Your task to perform on an android device: Open wifi settings Image 0: 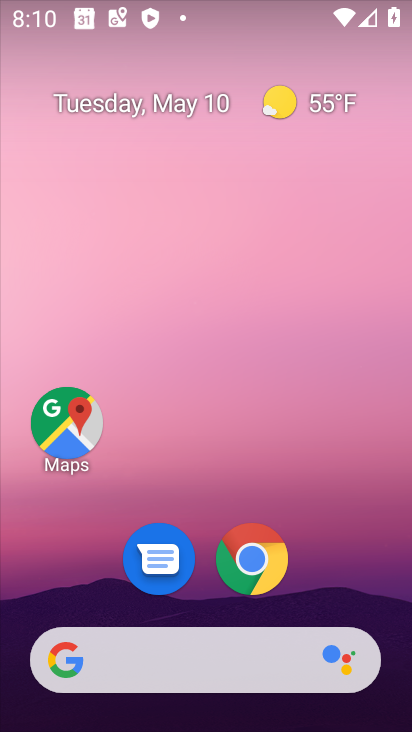
Step 0: drag from (220, 726) to (210, 157)
Your task to perform on an android device: Open wifi settings Image 1: 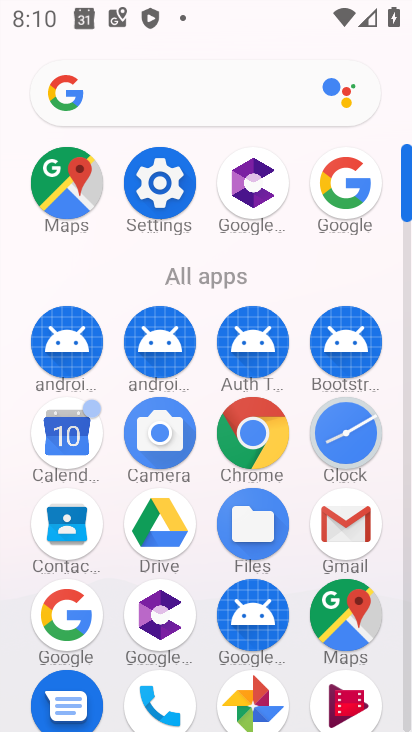
Step 1: click (163, 174)
Your task to perform on an android device: Open wifi settings Image 2: 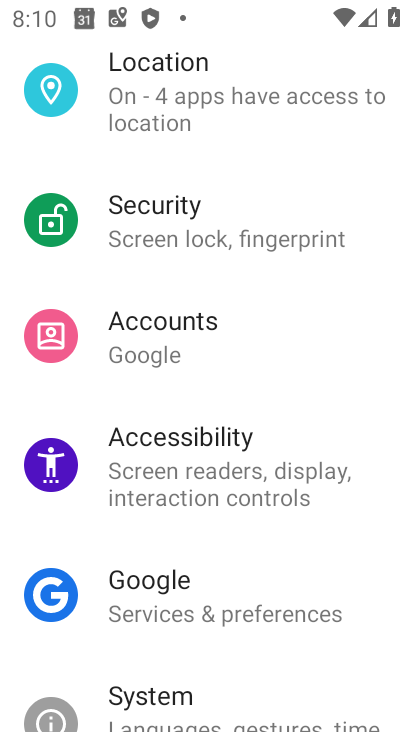
Step 2: drag from (227, 113) to (195, 548)
Your task to perform on an android device: Open wifi settings Image 3: 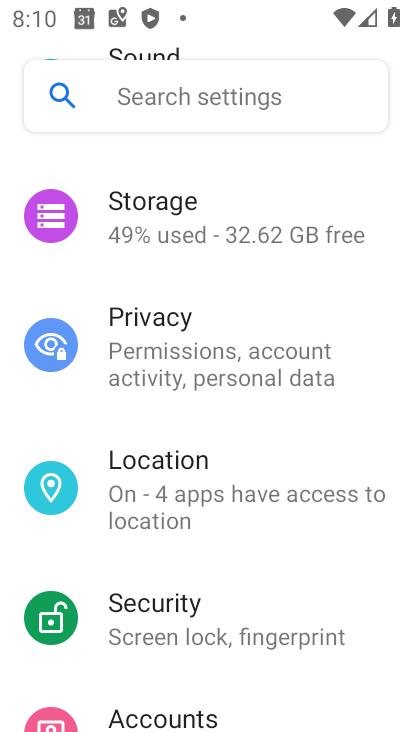
Step 3: drag from (238, 160) to (244, 474)
Your task to perform on an android device: Open wifi settings Image 4: 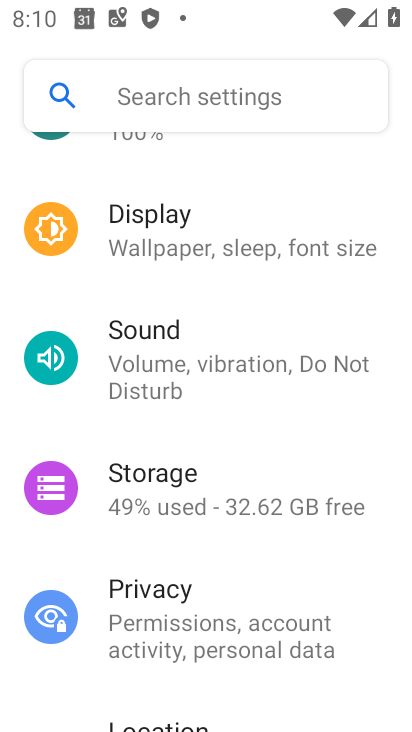
Step 4: drag from (261, 191) to (273, 490)
Your task to perform on an android device: Open wifi settings Image 5: 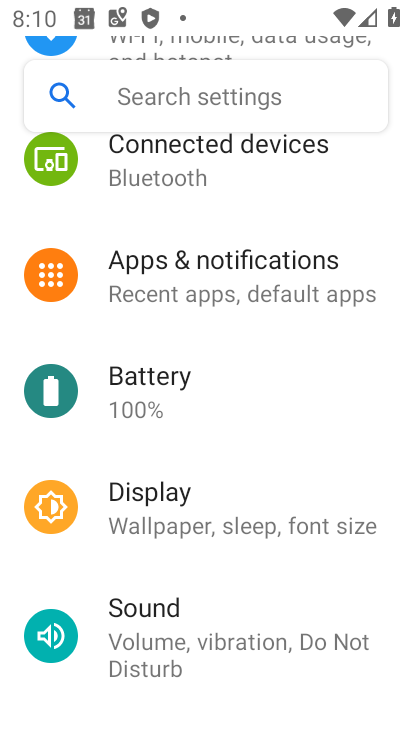
Step 5: drag from (292, 205) to (290, 462)
Your task to perform on an android device: Open wifi settings Image 6: 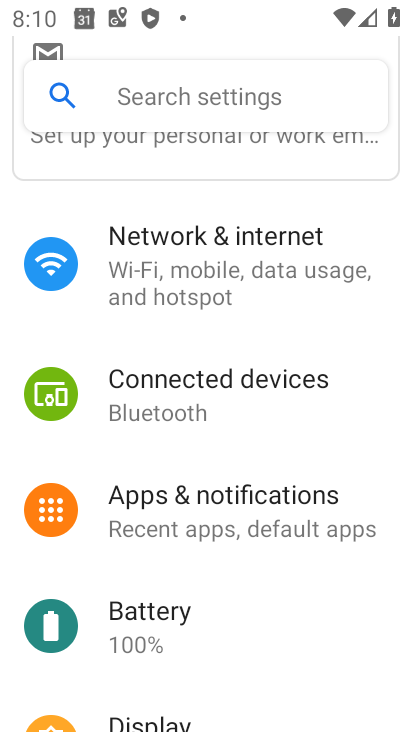
Step 6: click (174, 265)
Your task to perform on an android device: Open wifi settings Image 7: 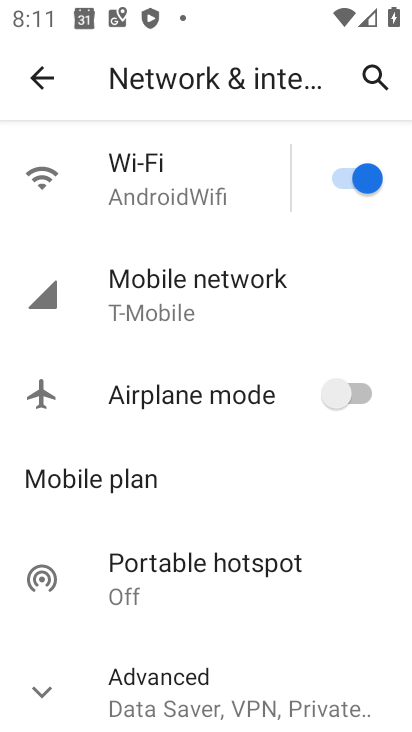
Step 7: click (133, 185)
Your task to perform on an android device: Open wifi settings Image 8: 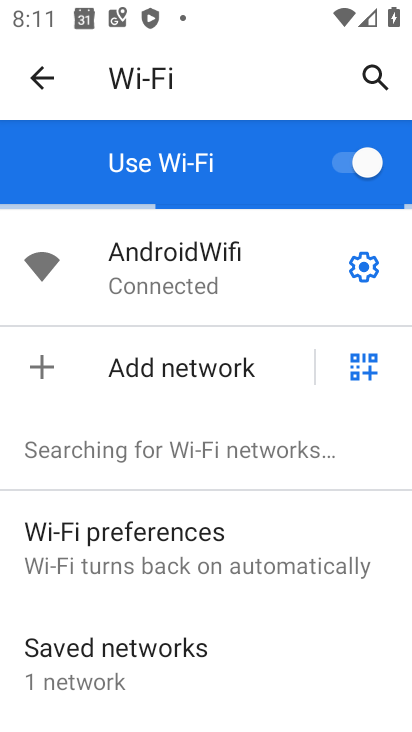
Step 8: task complete